Your task to perform on an android device: Clear the cart on amazon.com. Add "amazon basics triple a" to the cart on amazon.com Image 0: 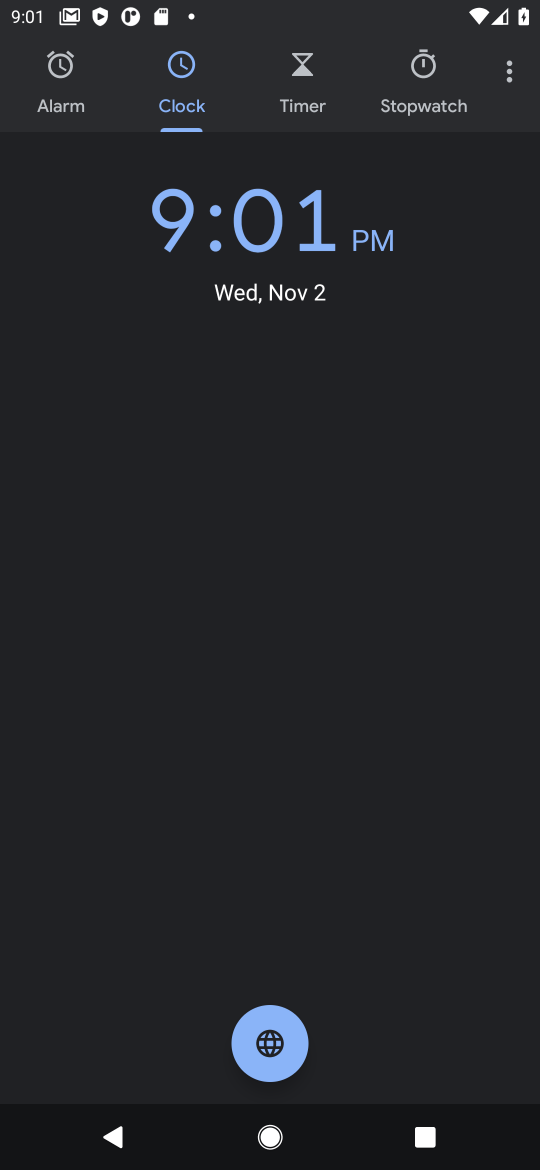
Step 0: press home button
Your task to perform on an android device: Clear the cart on amazon.com. Add "amazon basics triple a" to the cart on amazon.com Image 1: 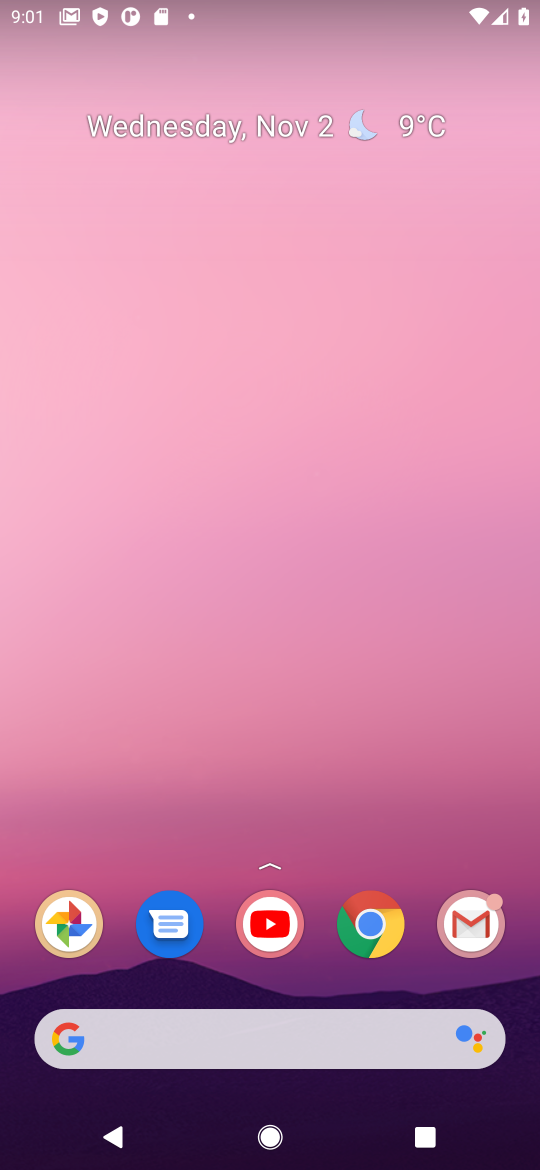
Step 1: click (366, 937)
Your task to perform on an android device: Clear the cart on amazon.com. Add "amazon basics triple a" to the cart on amazon.com Image 2: 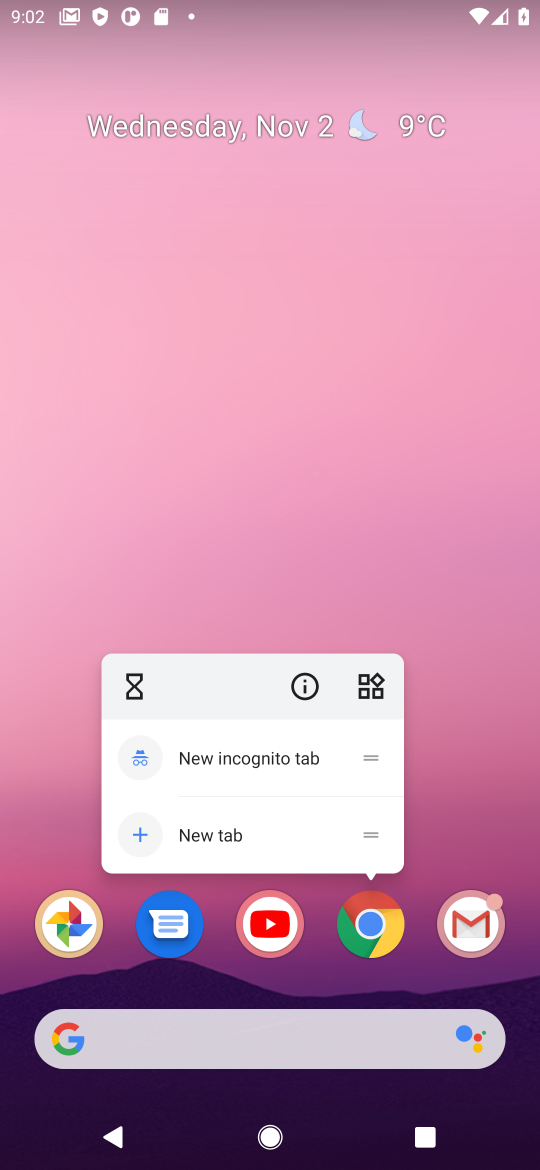
Step 2: click (369, 962)
Your task to perform on an android device: Clear the cart on amazon.com. Add "amazon basics triple a" to the cart on amazon.com Image 3: 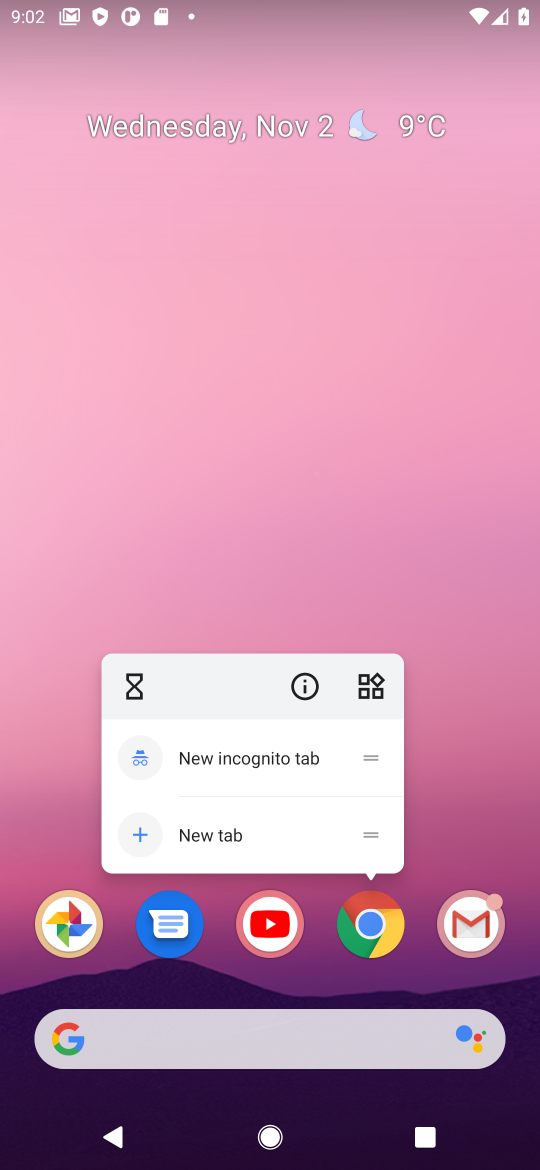
Step 3: click (344, 941)
Your task to perform on an android device: Clear the cart on amazon.com. Add "amazon basics triple a" to the cart on amazon.com Image 4: 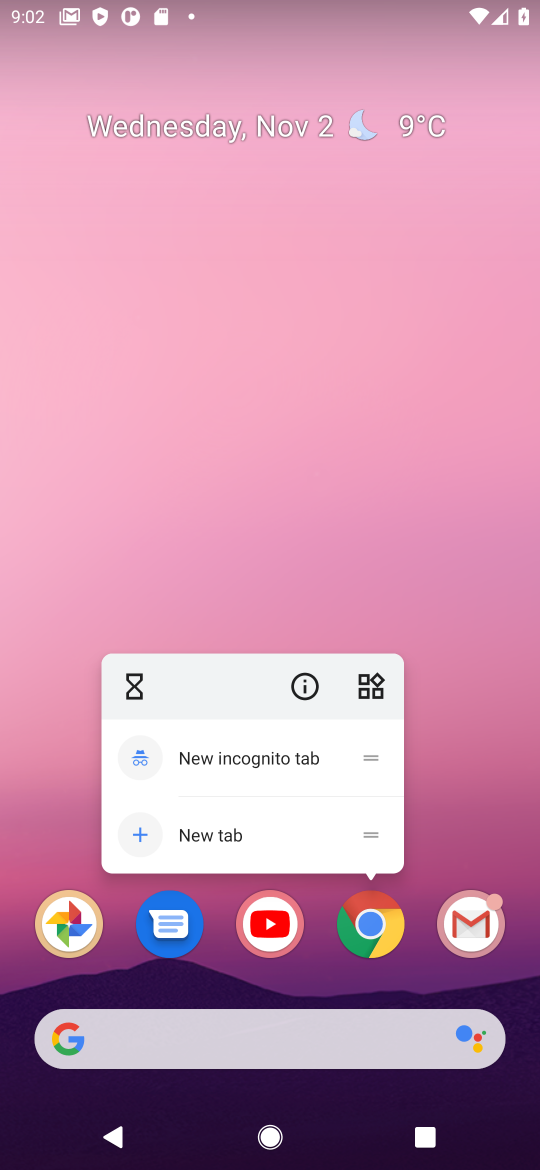
Step 4: click (384, 918)
Your task to perform on an android device: Clear the cart on amazon.com. Add "amazon basics triple a" to the cart on amazon.com Image 5: 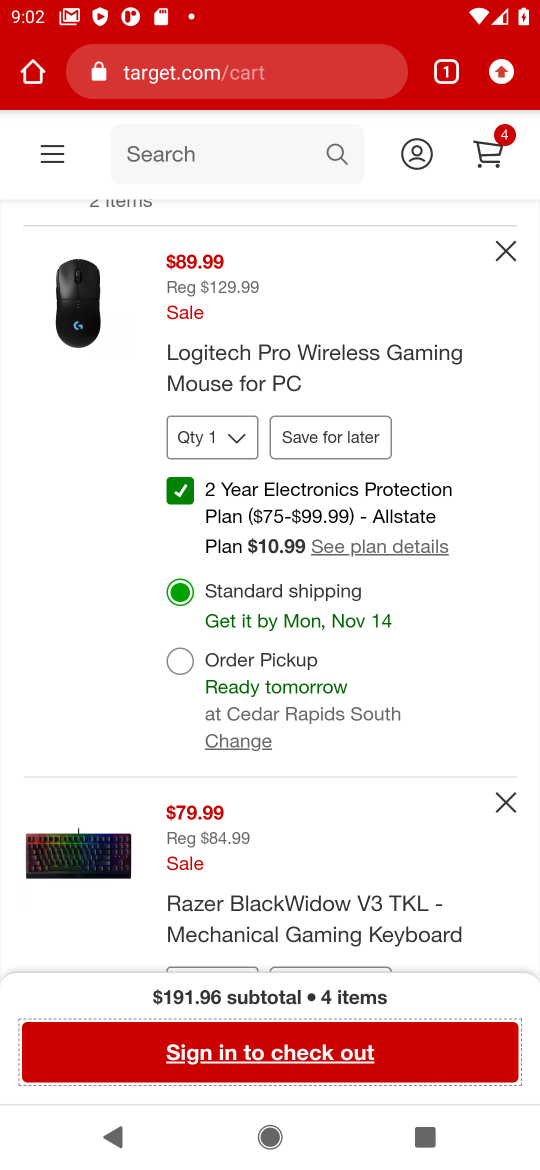
Step 5: click (224, 85)
Your task to perform on an android device: Clear the cart on amazon.com. Add "amazon basics triple a" to the cart on amazon.com Image 6: 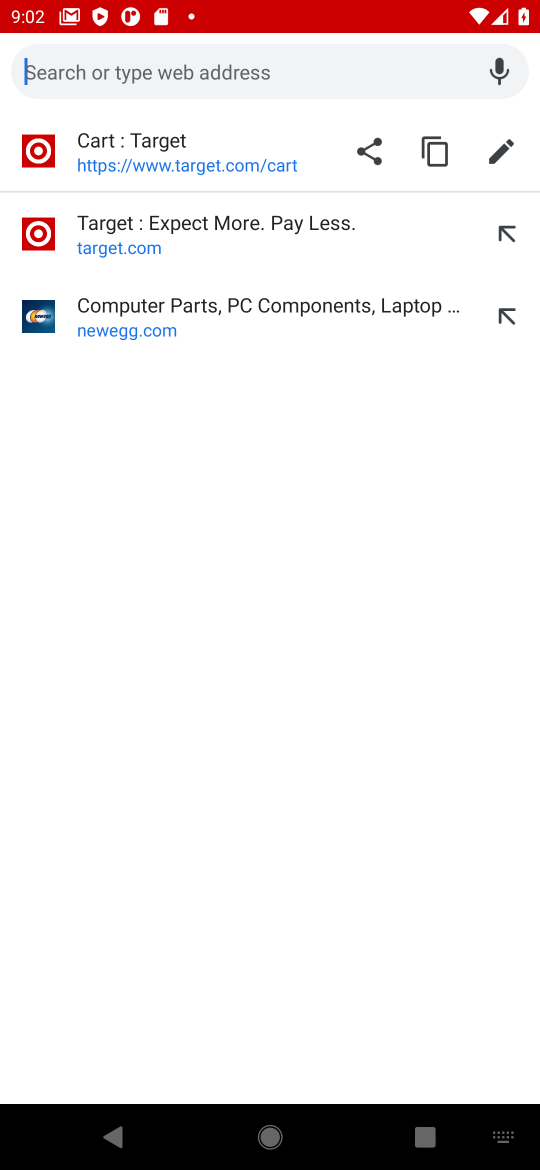
Step 6: type "amazon"
Your task to perform on an android device: Clear the cart on amazon.com. Add "amazon basics triple a" to the cart on amazon.com Image 7: 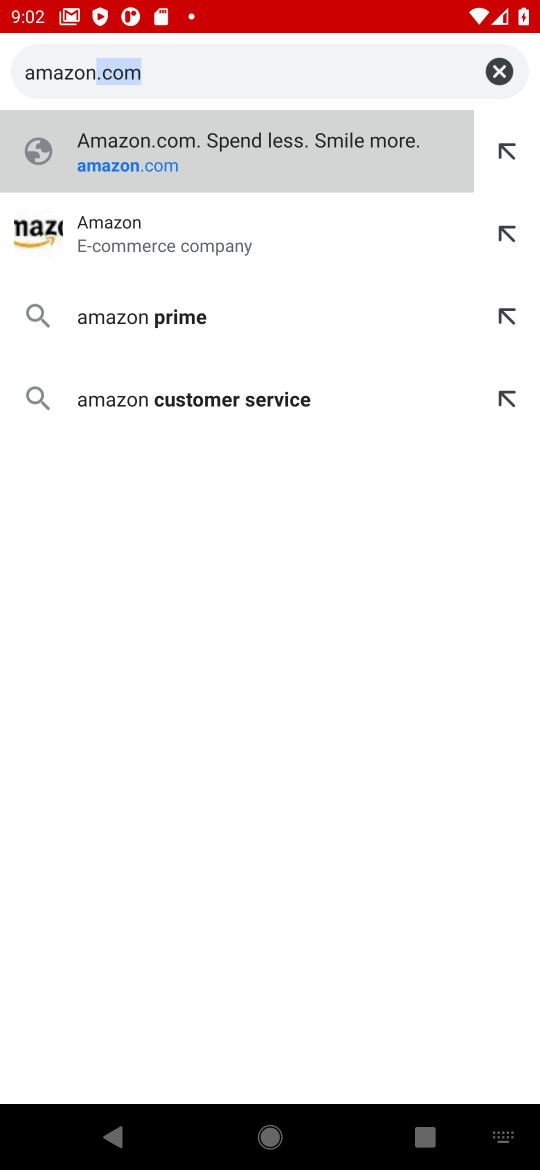
Step 7: type ""
Your task to perform on an android device: Clear the cart on amazon.com. Add "amazon basics triple a" to the cart on amazon.com Image 8: 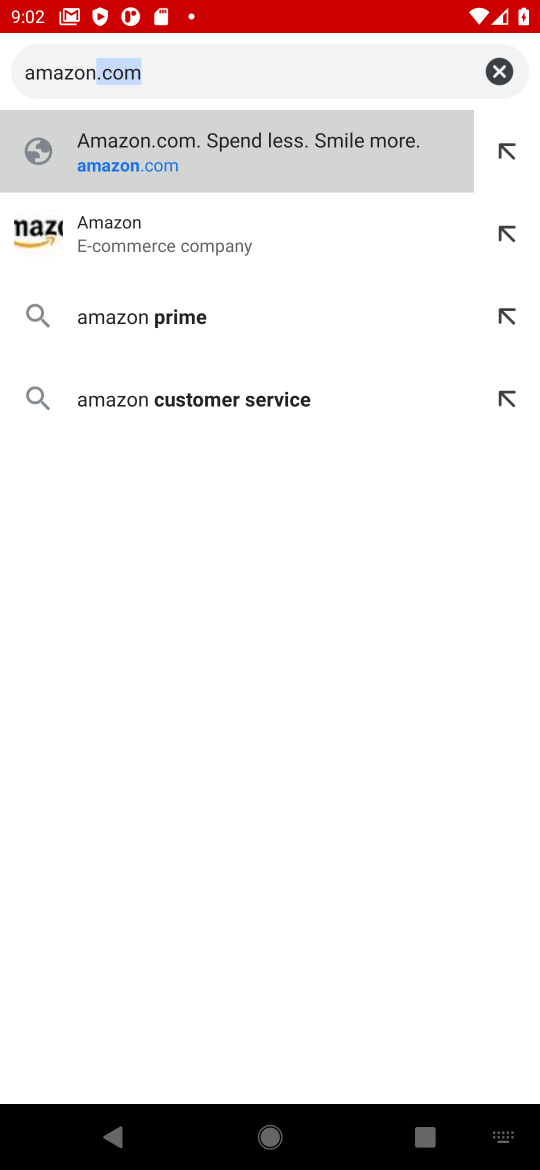
Step 8: click (103, 259)
Your task to perform on an android device: Clear the cart on amazon.com. Add "amazon basics triple a" to the cart on amazon.com Image 9: 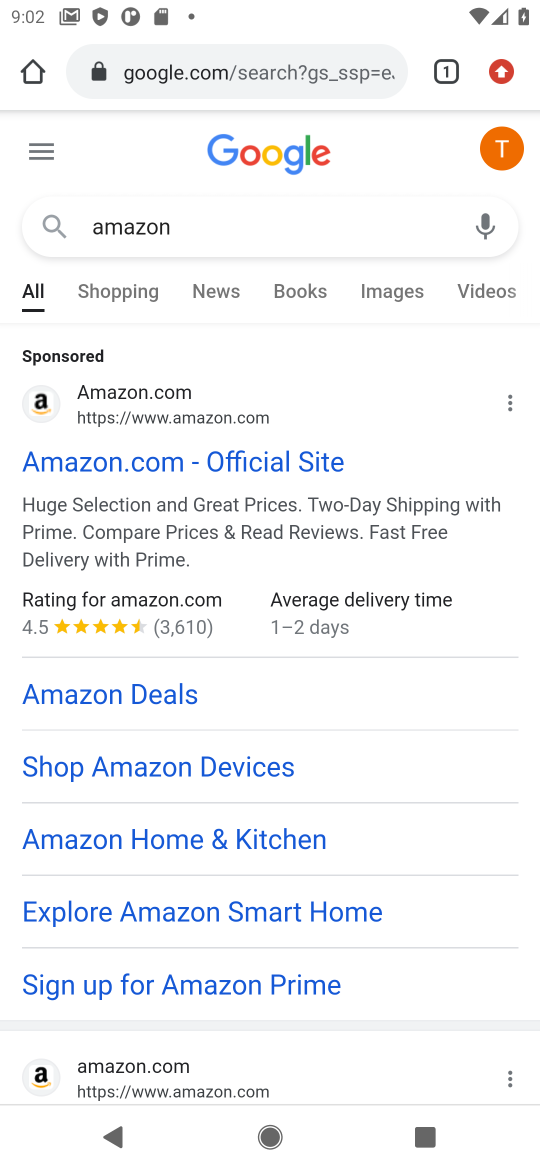
Step 9: drag from (196, 946) to (259, 416)
Your task to perform on an android device: Clear the cart on amazon.com. Add "amazon basics triple a" to the cart on amazon.com Image 10: 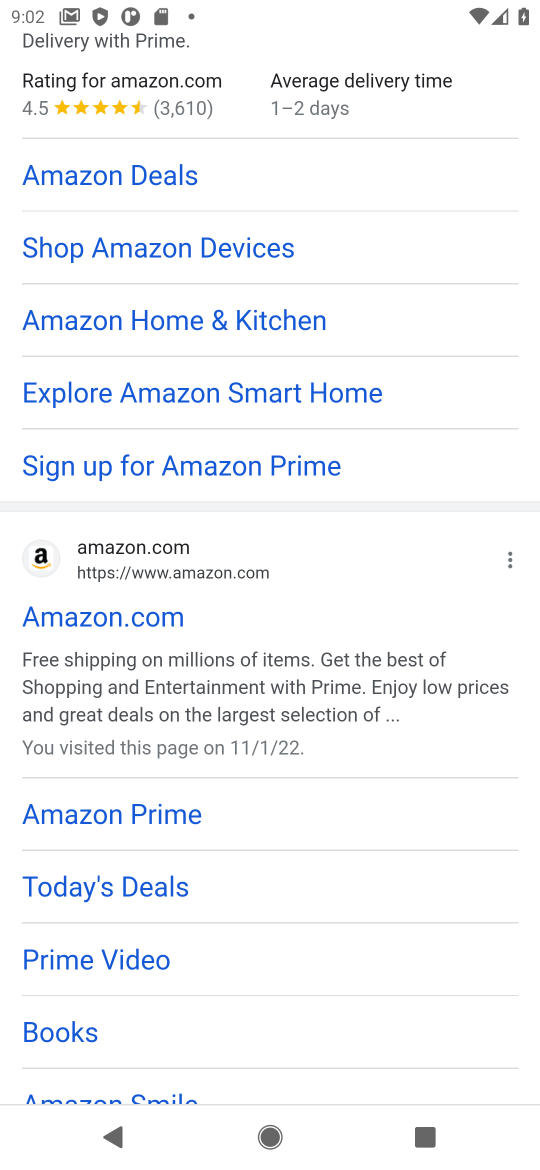
Step 10: click (87, 630)
Your task to perform on an android device: Clear the cart on amazon.com. Add "amazon basics triple a" to the cart on amazon.com Image 11: 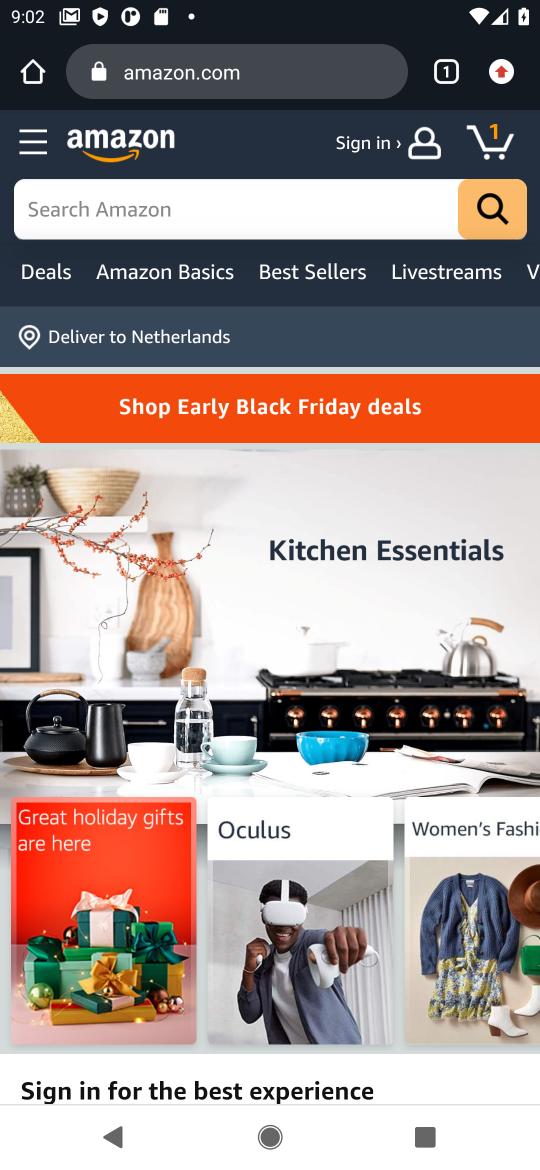
Step 11: click (507, 131)
Your task to perform on an android device: Clear the cart on amazon.com. Add "amazon basics triple a" to the cart on amazon.com Image 12: 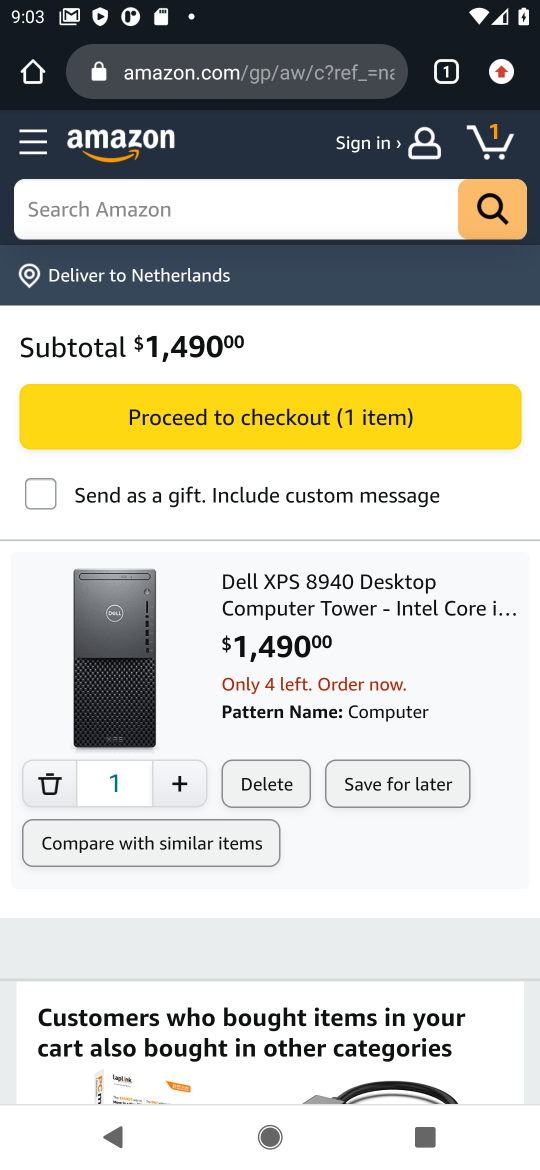
Step 12: click (272, 791)
Your task to perform on an android device: Clear the cart on amazon.com. Add "amazon basics triple a" to the cart on amazon.com Image 13: 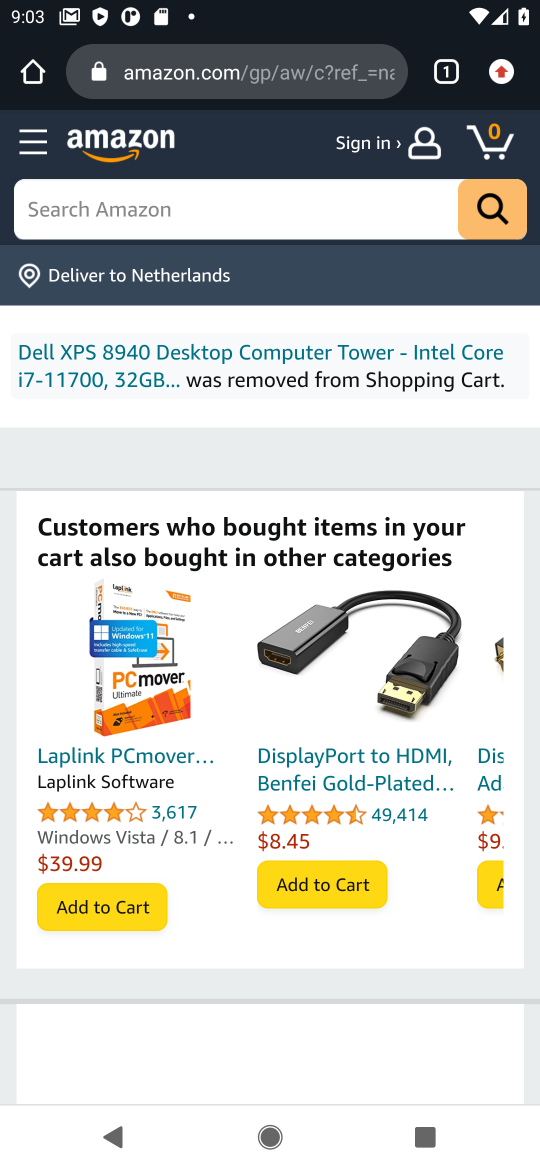
Step 13: click (498, 211)
Your task to perform on an android device: Clear the cart on amazon.com. Add "amazon basics triple a" to the cart on amazon.com Image 14: 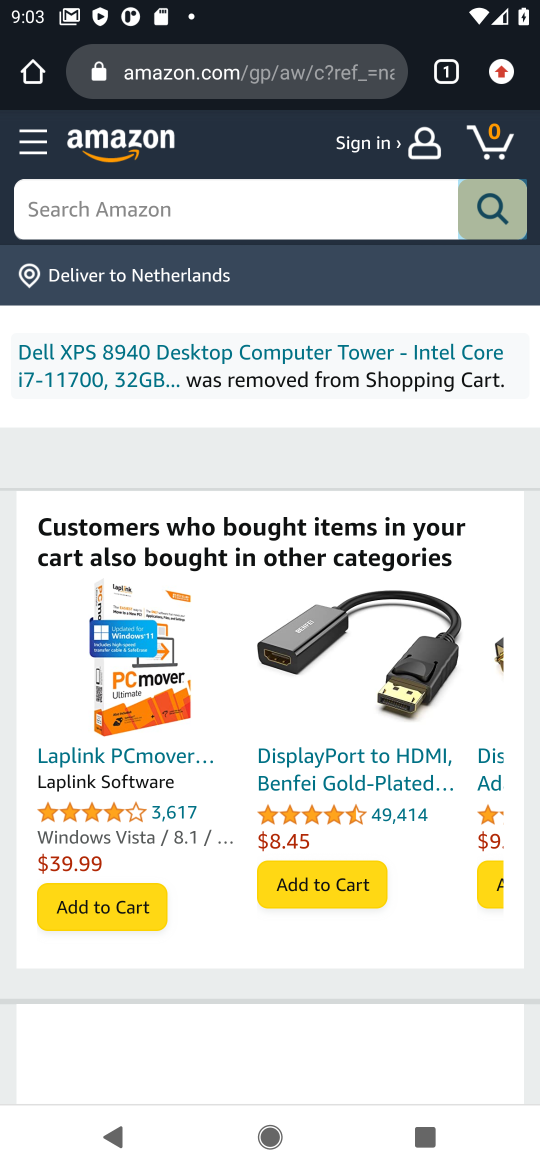
Step 14: click (191, 219)
Your task to perform on an android device: Clear the cart on amazon.com. Add "amazon basics triple a" to the cart on amazon.com Image 15: 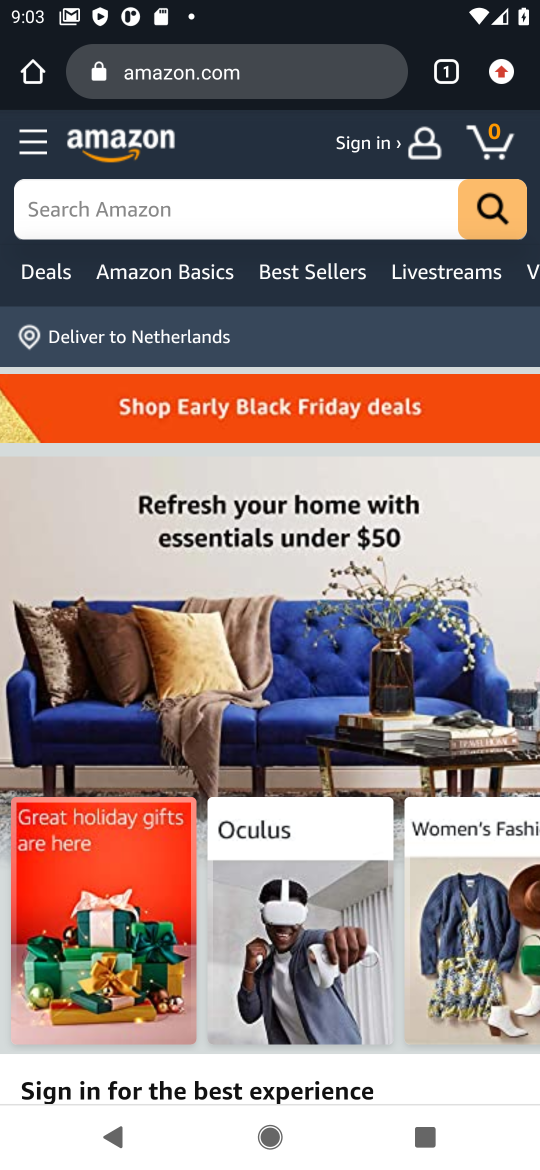
Step 15: click (299, 194)
Your task to perform on an android device: Clear the cart on amazon.com. Add "amazon basics triple a" to the cart on amazon.com Image 16: 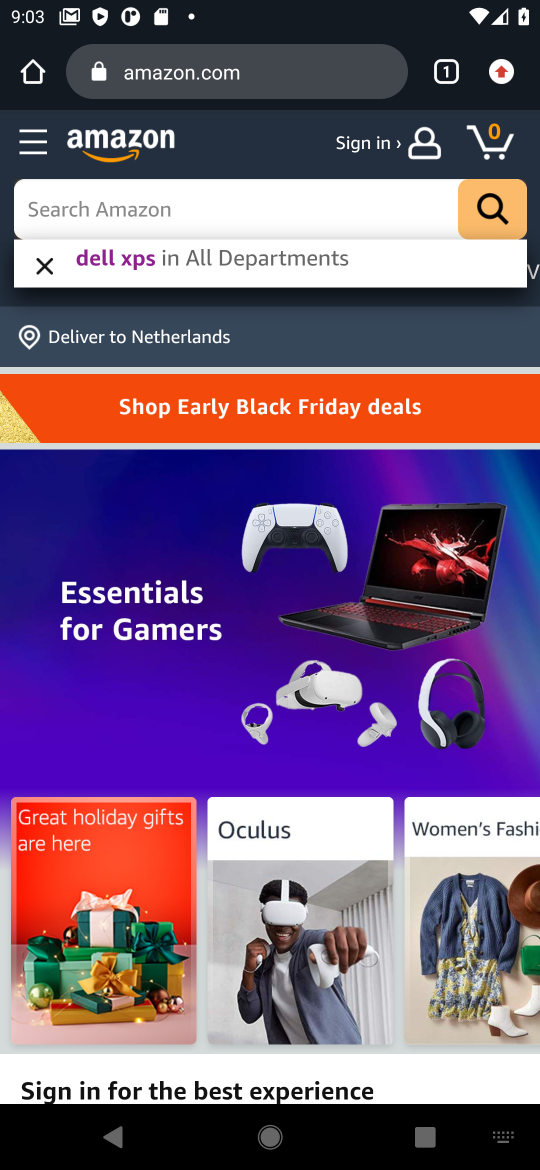
Step 16: type "basics triple"
Your task to perform on an android device: Clear the cart on amazon.com. Add "amazon basics triple a" to the cart on amazon.com Image 17: 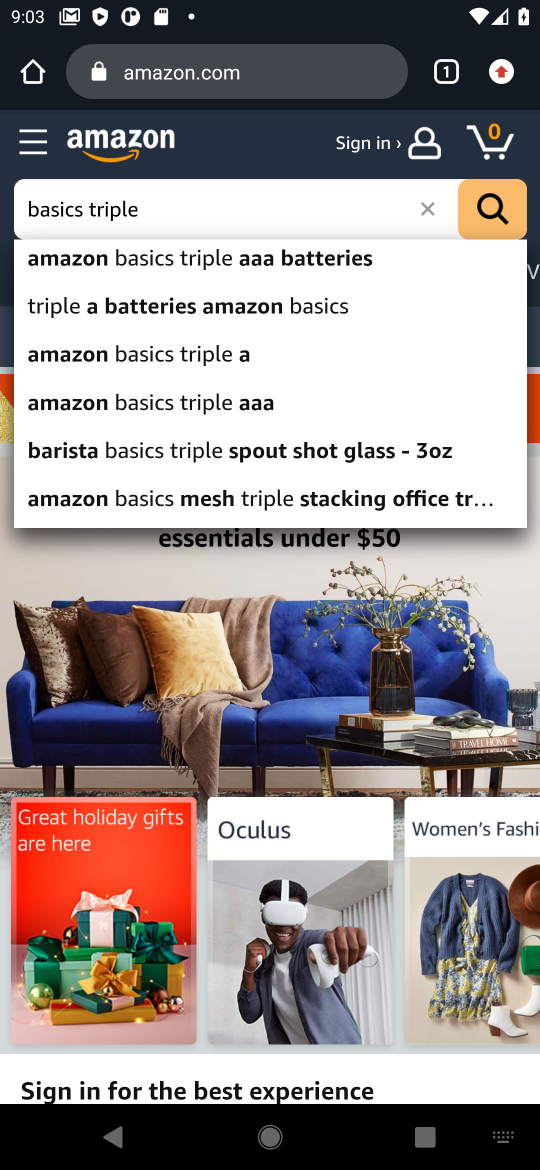
Step 17: click (126, 349)
Your task to perform on an android device: Clear the cart on amazon.com. Add "amazon basics triple a" to the cart on amazon.com Image 18: 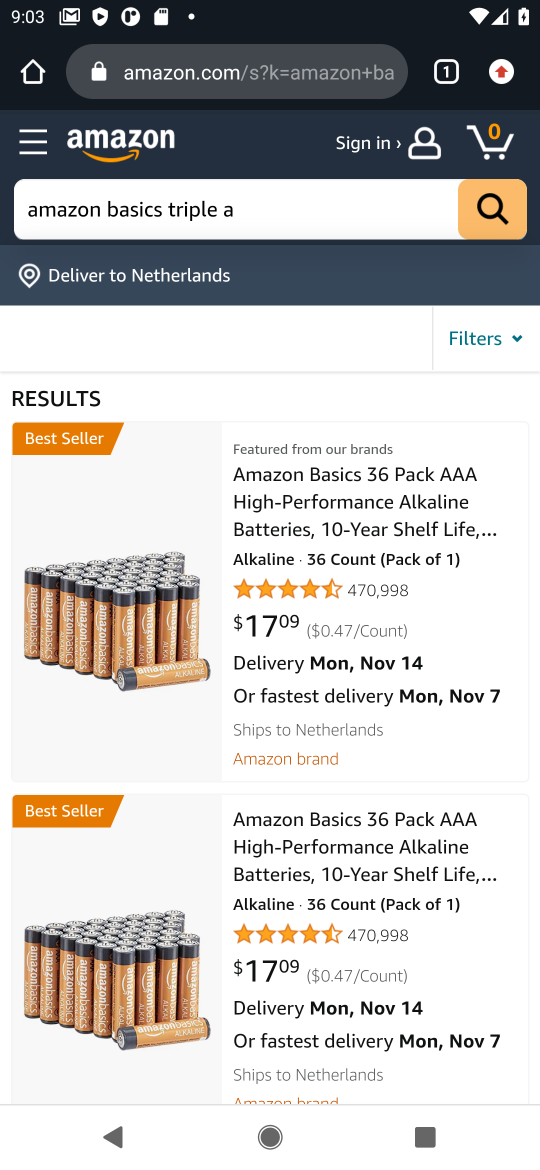
Step 18: click (108, 666)
Your task to perform on an android device: Clear the cart on amazon.com. Add "amazon basics triple a" to the cart on amazon.com Image 19: 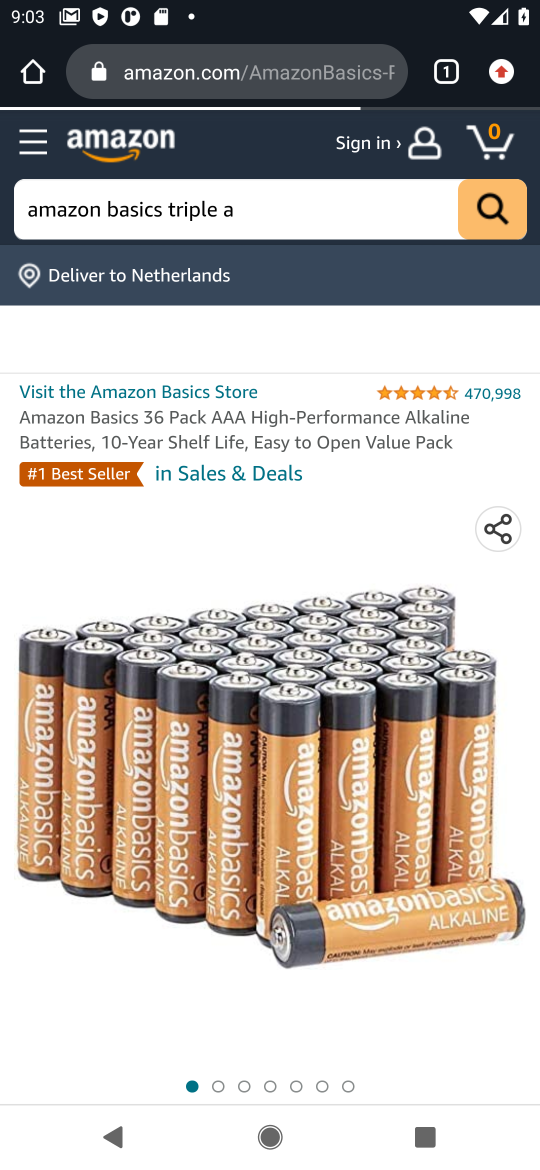
Step 19: drag from (204, 855) to (272, 452)
Your task to perform on an android device: Clear the cart on amazon.com. Add "amazon basics triple a" to the cart on amazon.com Image 20: 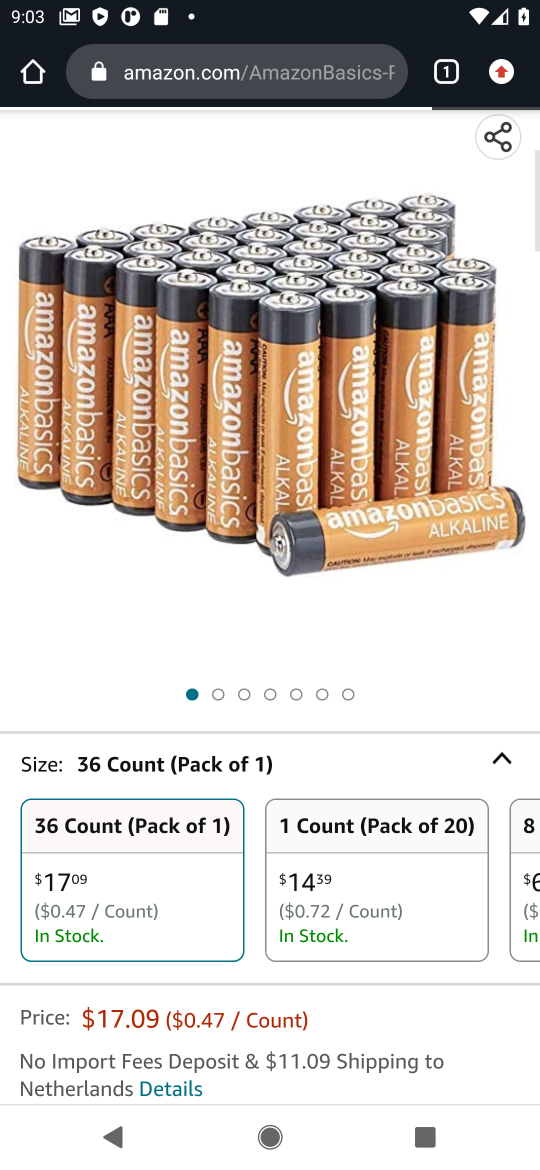
Step 20: drag from (215, 860) to (249, 648)
Your task to perform on an android device: Clear the cart on amazon.com. Add "amazon basics triple a" to the cart on amazon.com Image 21: 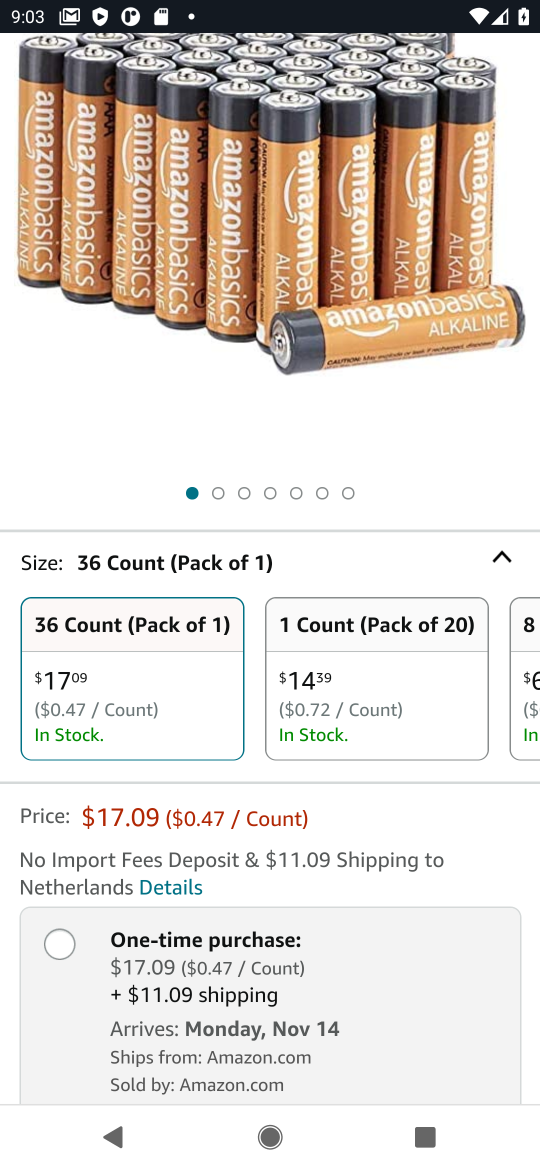
Step 21: drag from (197, 929) to (218, 674)
Your task to perform on an android device: Clear the cart on amazon.com. Add "amazon basics triple a" to the cart on amazon.com Image 22: 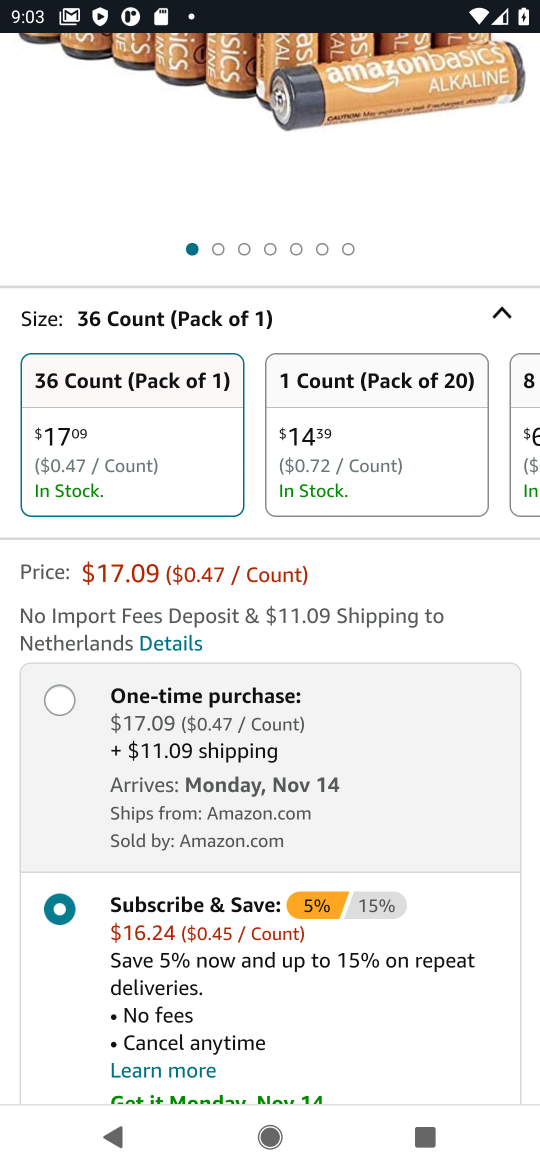
Step 22: drag from (232, 911) to (246, 539)
Your task to perform on an android device: Clear the cart on amazon.com. Add "amazon basics triple a" to the cart on amazon.com Image 23: 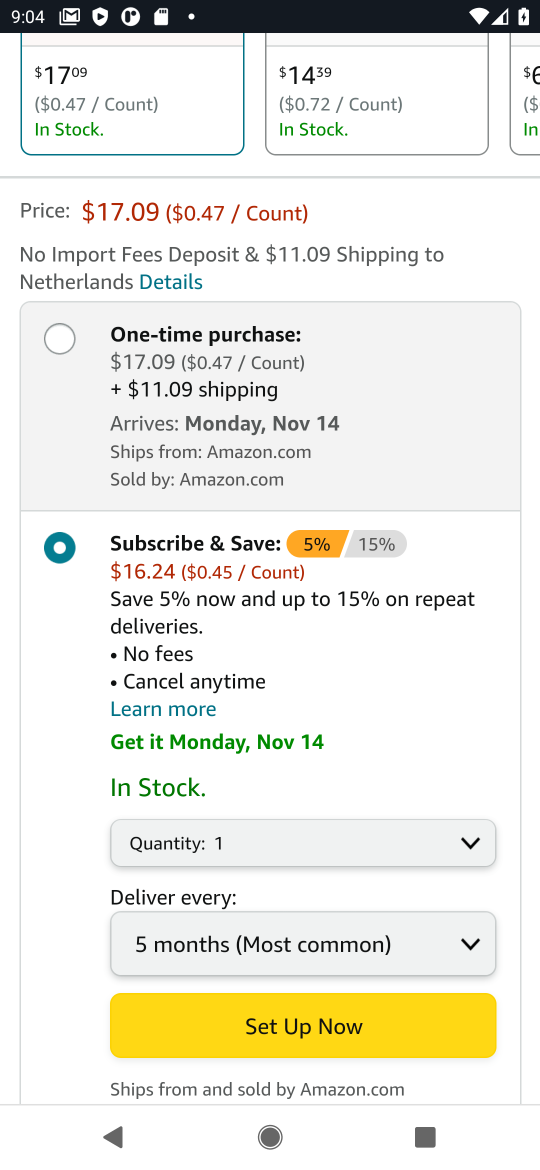
Step 23: drag from (235, 772) to (273, 481)
Your task to perform on an android device: Clear the cart on amazon.com. Add "amazon basics triple a" to the cart on amazon.com Image 24: 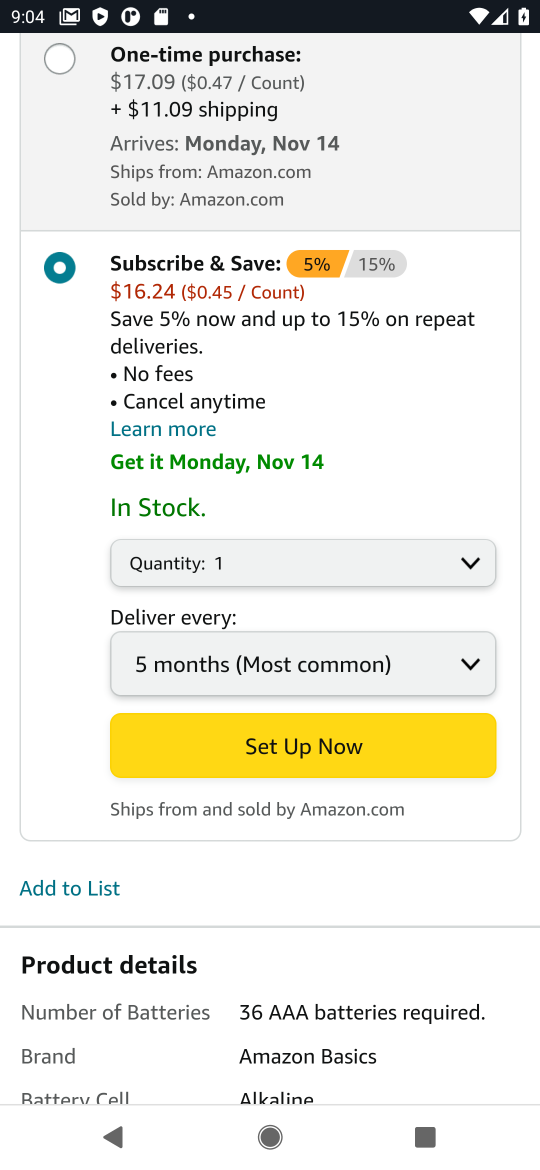
Step 24: drag from (199, 812) to (259, 160)
Your task to perform on an android device: Clear the cart on amazon.com. Add "amazon basics triple a" to the cart on amazon.com Image 25: 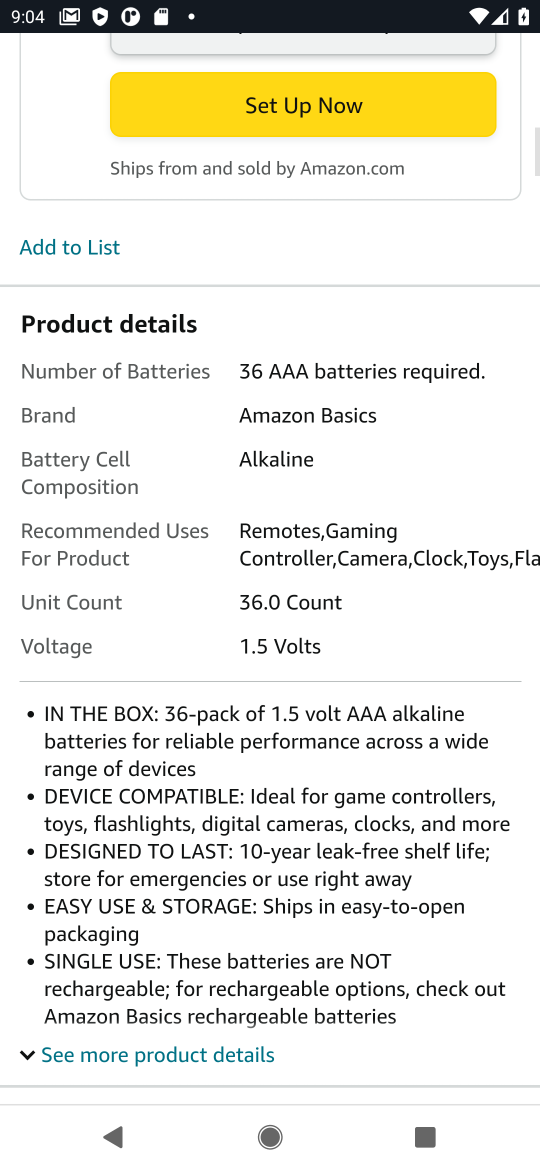
Step 25: drag from (187, 434) to (182, 1106)
Your task to perform on an android device: Clear the cart on amazon.com. Add "amazon basics triple a" to the cart on amazon.com Image 26: 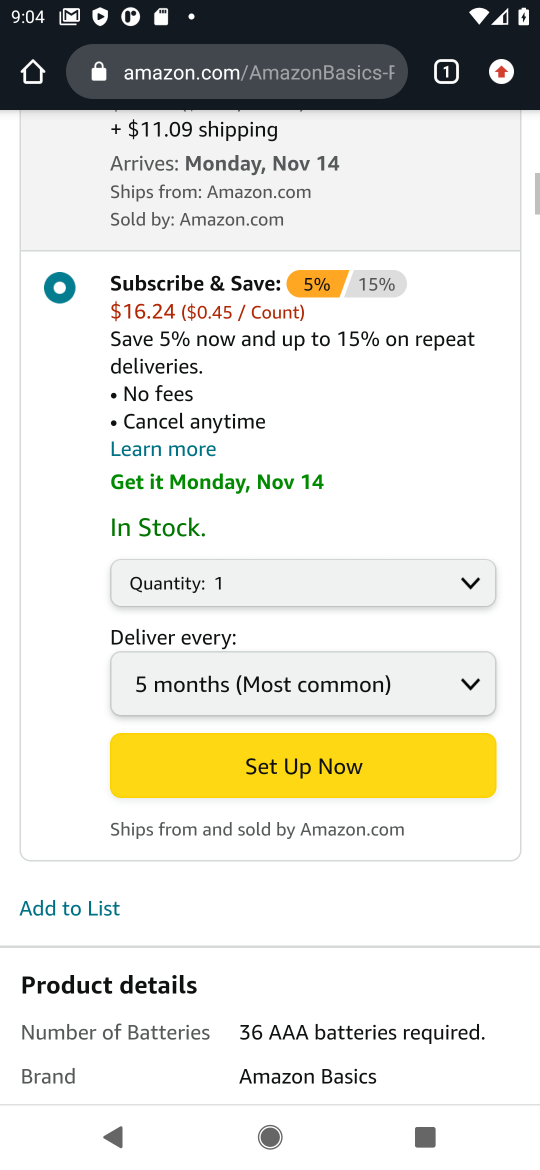
Step 26: drag from (260, 393) to (253, 958)
Your task to perform on an android device: Clear the cart on amazon.com. Add "amazon basics triple a" to the cart on amazon.com Image 27: 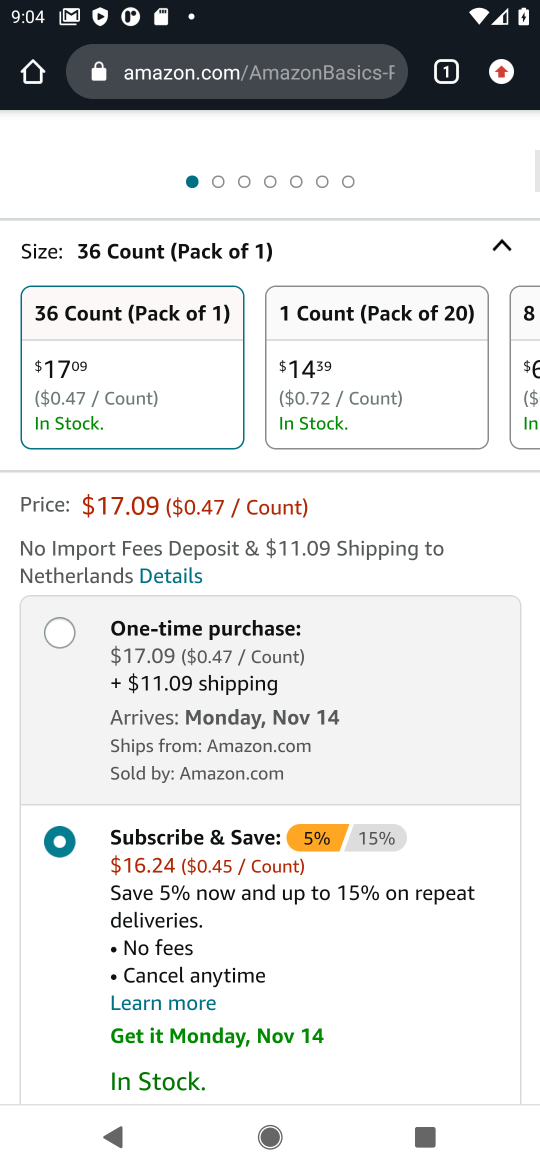
Step 27: drag from (257, 555) to (235, 794)
Your task to perform on an android device: Clear the cart on amazon.com. Add "amazon basics triple a" to the cart on amazon.com Image 28: 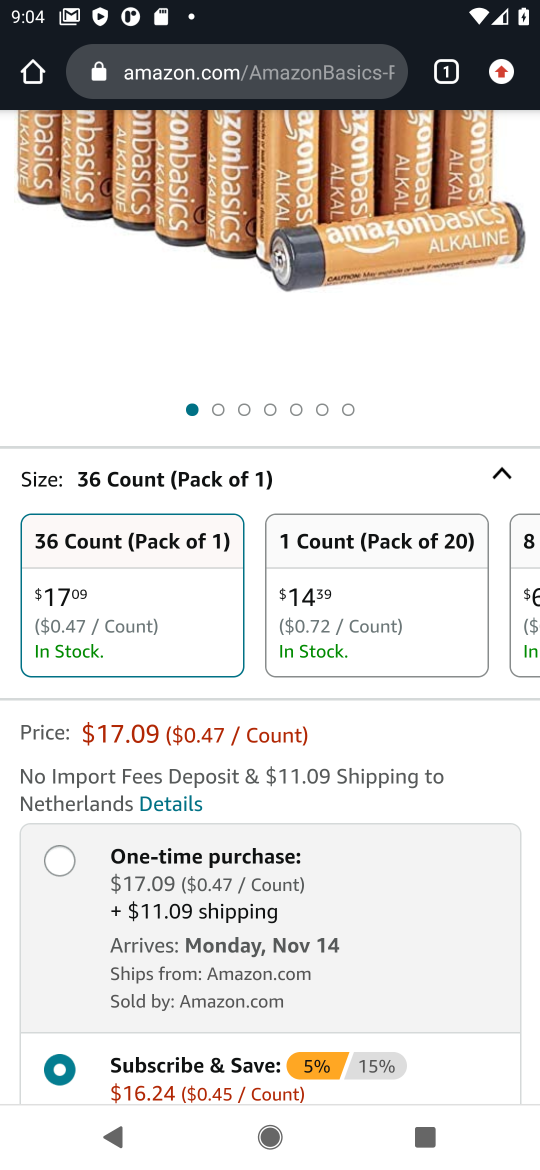
Step 28: drag from (302, 744) to (326, 124)
Your task to perform on an android device: Clear the cart on amazon.com. Add "amazon basics triple a" to the cart on amazon.com Image 29: 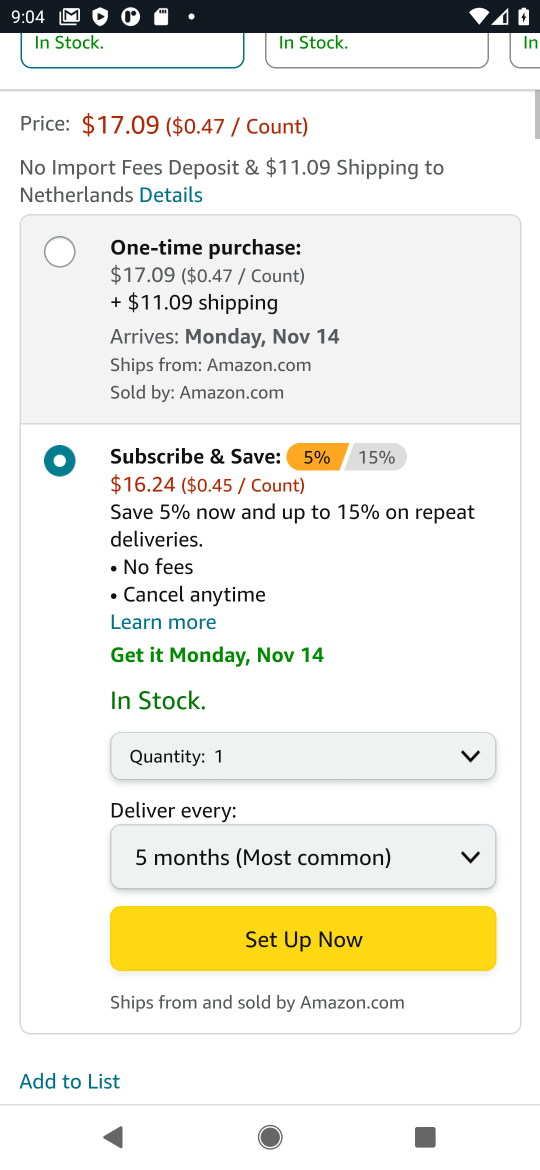
Step 29: drag from (235, 565) to (229, 81)
Your task to perform on an android device: Clear the cart on amazon.com. Add "amazon basics triple a" to the cart on amazon.com Image 30: 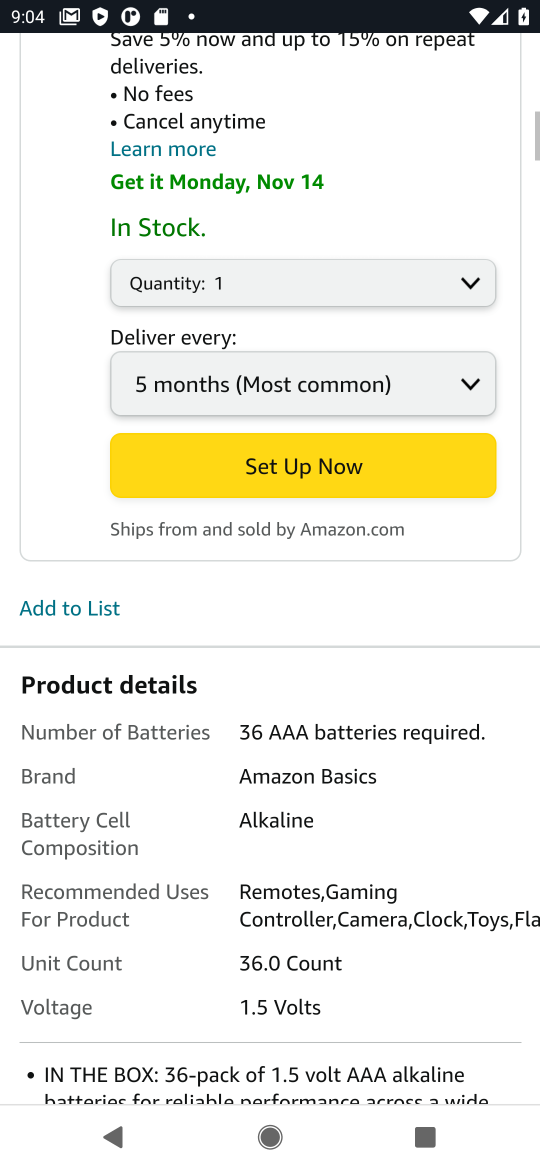
Step 30: drag from (144, 854) to (132, 283)
Your task to perform on an android device: Clear the cart on amazon.com. Add "amazon basics triple a" to the cart on amazon.com Image 31: 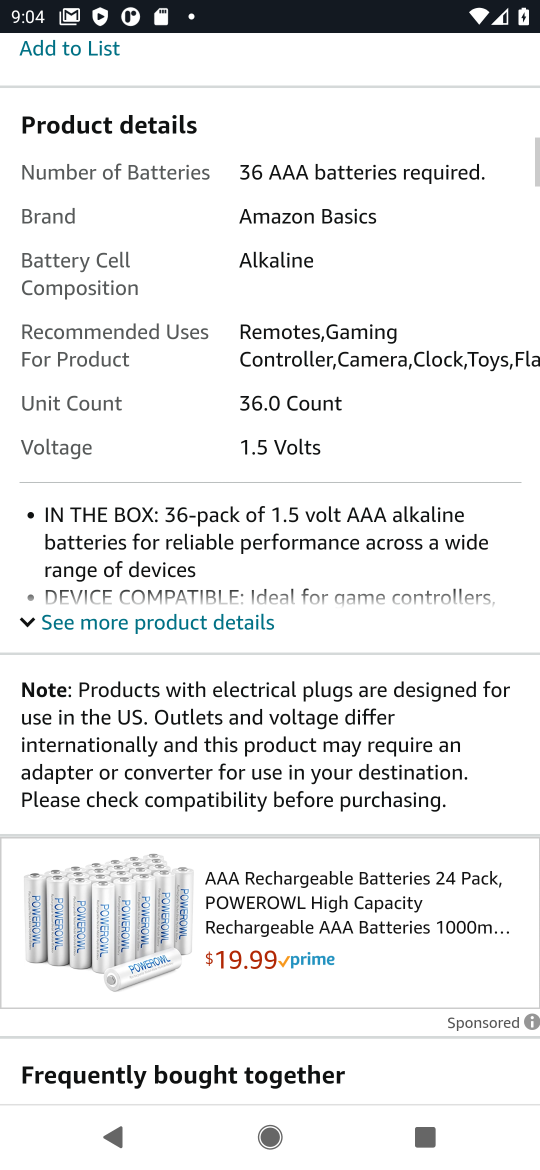
Step 31: drag from (146, 772) to (131, 402)
Your task to perform on an android device: Clear the cart on amazon.com. Add "amazon basics triple a" to the cart on amazon.com Image 32: 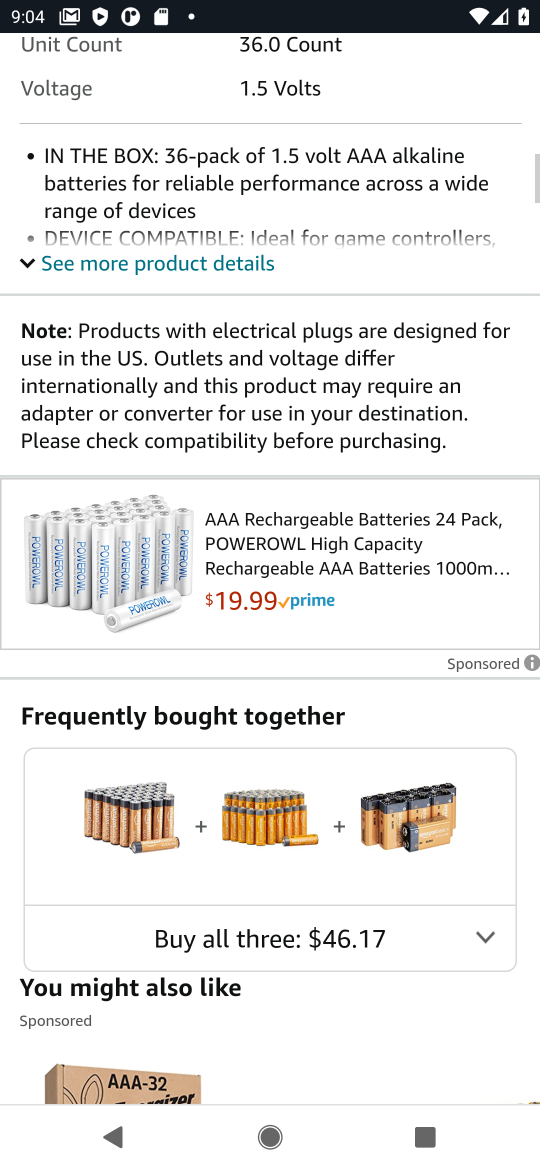
Step 32: drag from (167, 1083) to (199, 621)
Your task to perform on an android device: Clear the cart on amazon.com. Add "amazon basics triple a" to the cart on amazon.com Image 33: 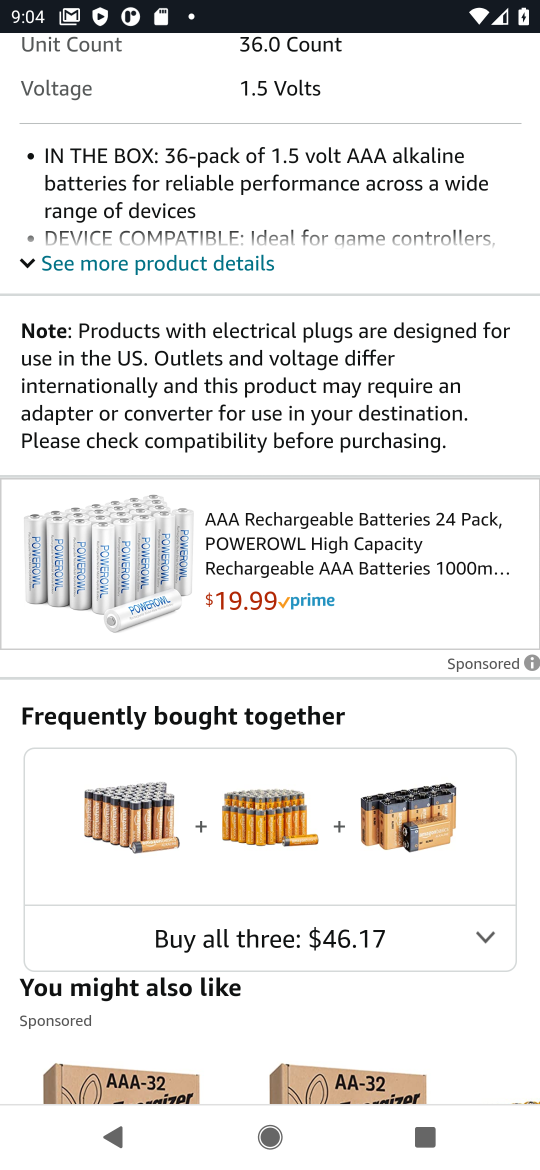
Step 33: drag from (201, 662) to (244, 332)
Your task to perform on an android device: Clear the cart on amazon.com. Add "amazon basics triple a" to the cart on amazon.com Image 34: 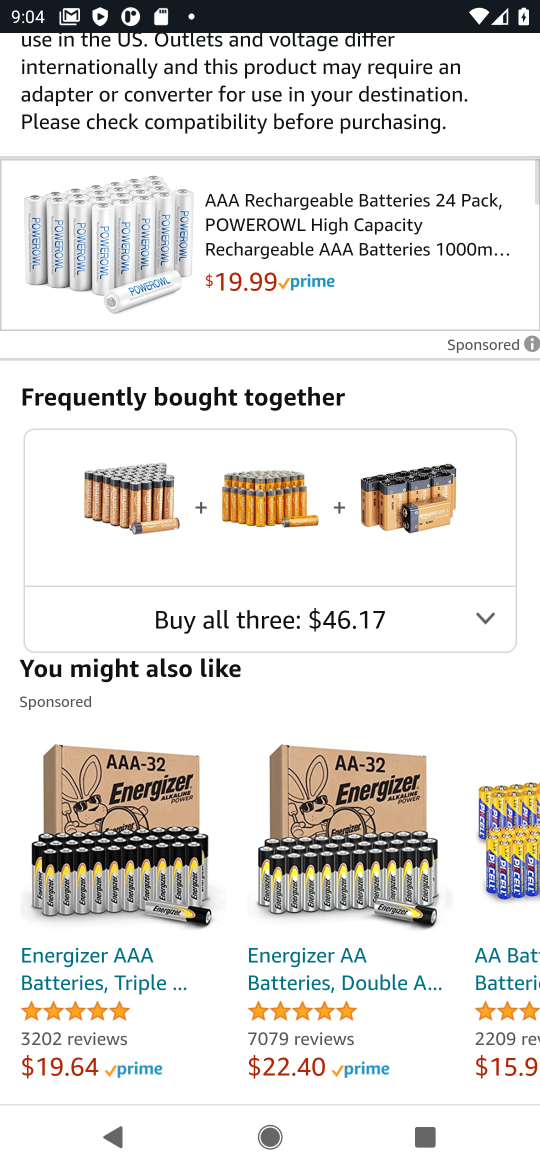
Step 34: drag from (383, 836) to (404, 482)
Your task to perform on an android device: Clear the cart on amazon.com. Add "amazon basics triple a" to the cart on amazon.com Image 35: 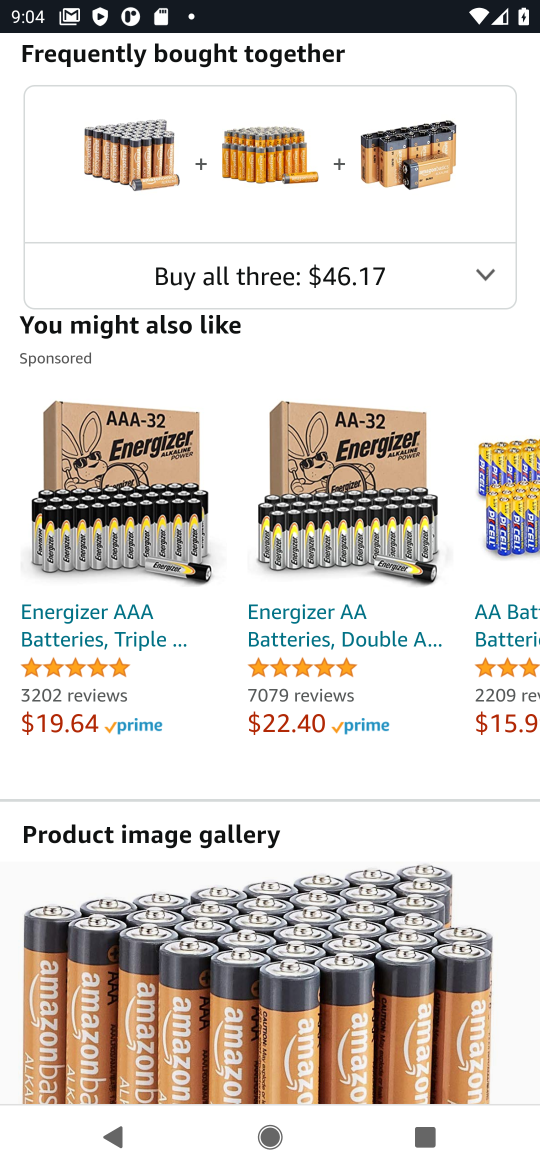
Step 35: drag from (301, 379) to (319, 979)
Your task to perform on an android device: Clear the cart on amazon.com. Add "amazon basics triple a" to the cart on amazon.com Image 36: 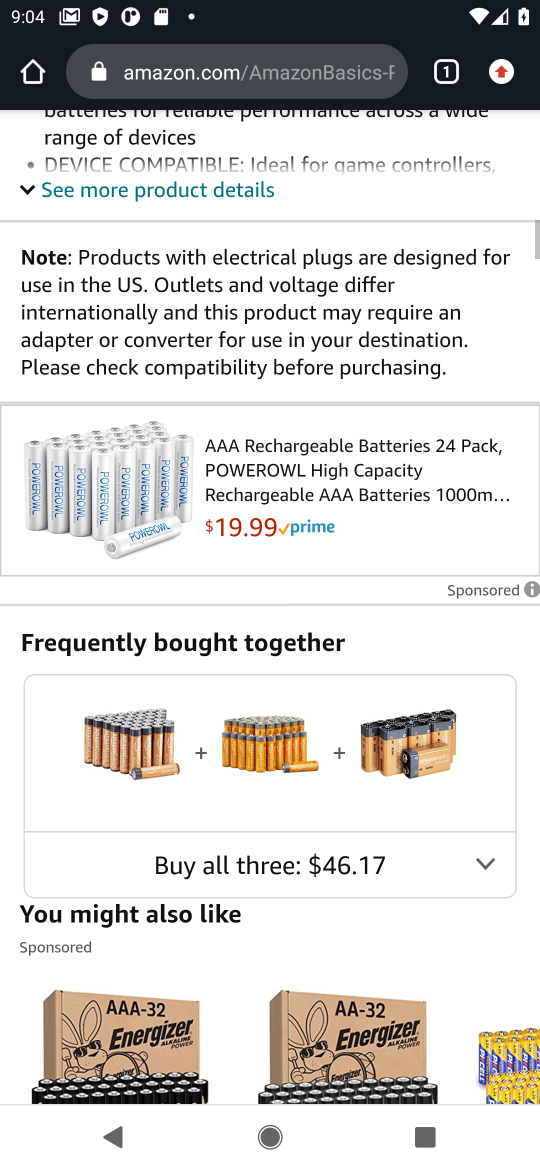
Step 36: drag from (192, 407) to (163, 924)
Your task to perform on an android device: Clear the cart on amazon.com. Add "amazon basics triple a" to the cart on amazon.com Image 37: 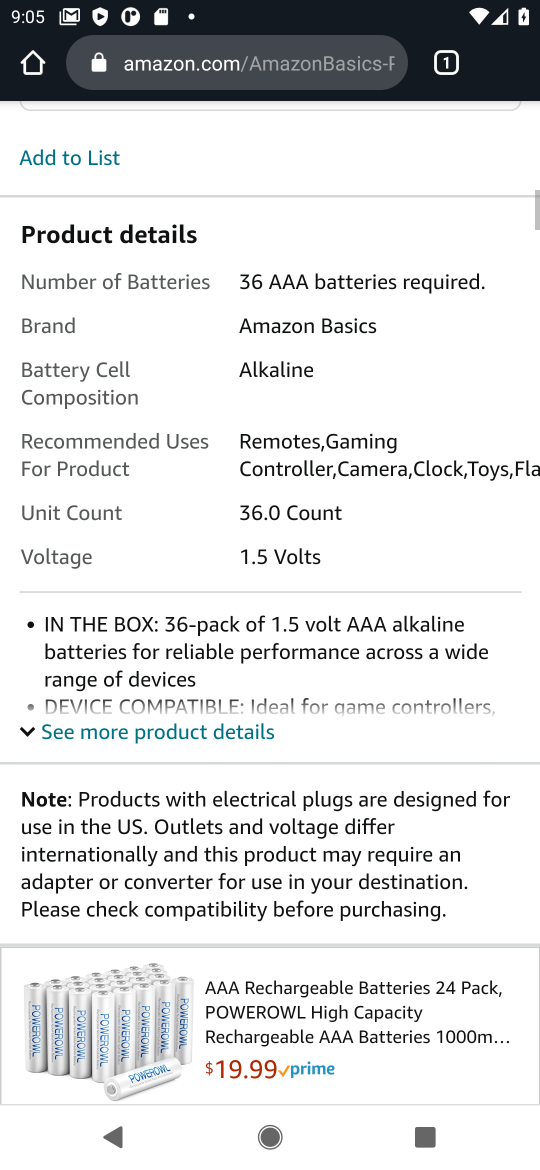
Step 37: drag from (95, 420) to (16, 1147)
Your task to perform on an android device: Clear the cart on amazon.com. Add "amazon basics triple a" to the cart on amazon.com Image 38: 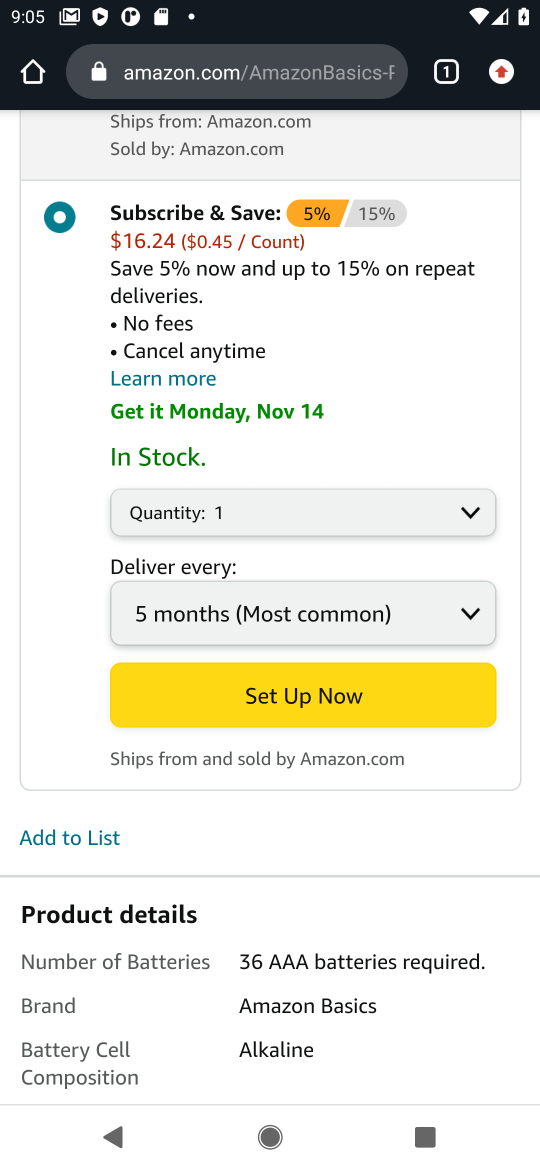
Step 38: drag from (307, 469) to (299, 1056)
Your task to perform on an android device: Clear the cart on amazon.com. Add "amazon basics triple a" to the cart on amazon.com Image 39: 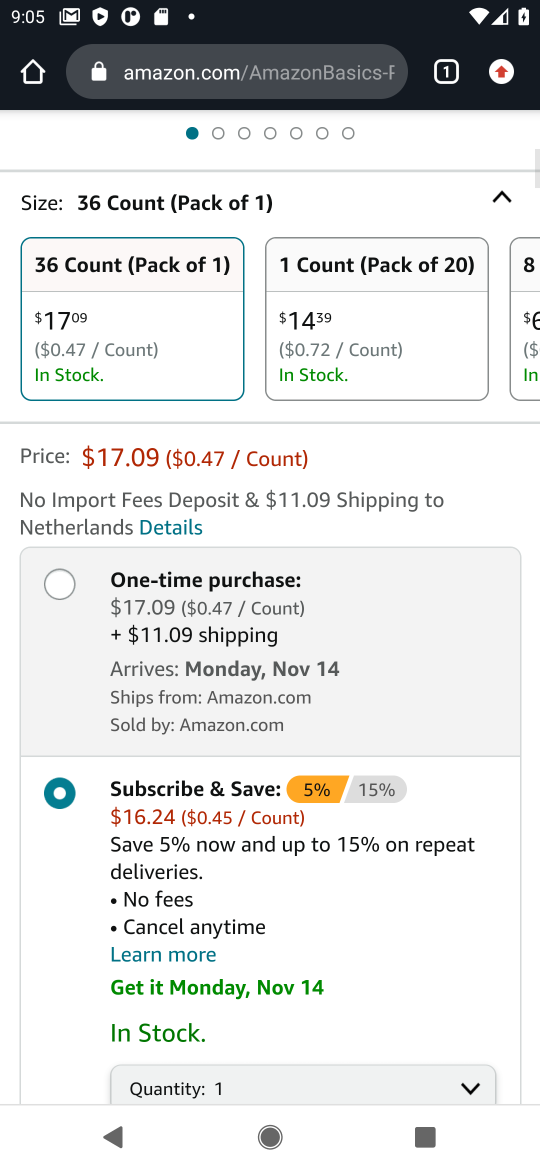
Step 39: drag from (112, 472) to (87, 836)
Your task to perform on an android device: Clear the cart on amazon.com. Add "amazon basics triple a" to the cart on amazon.com Image 40: 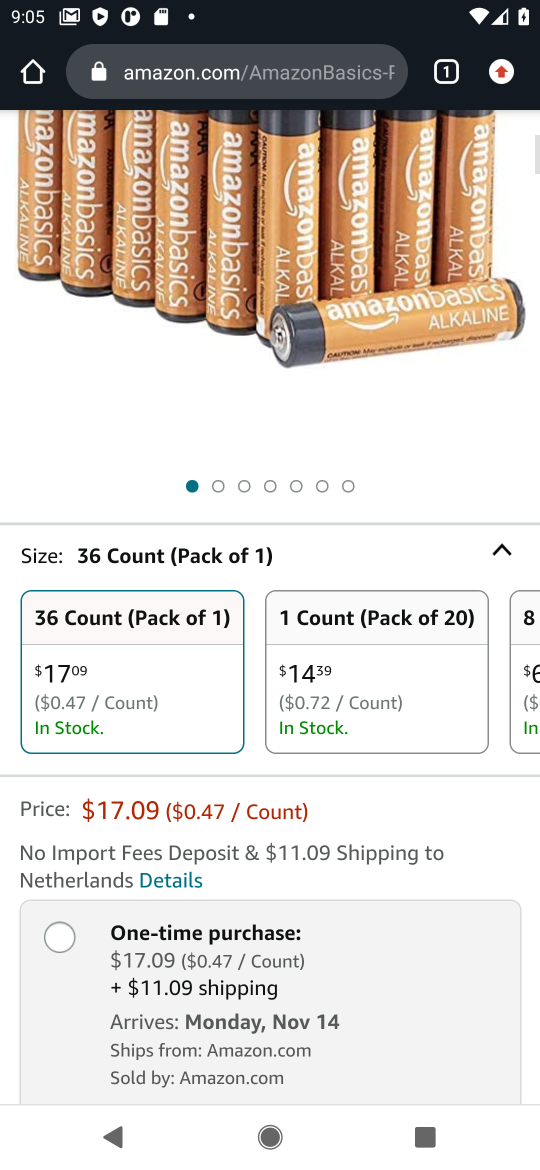
Step 40: drag from (202, 362) to (256, 763)
Your task to perform on an android device: Clear the cart on amazon.com. Add "amazon basics triple a" to the cart on amazon.com Image 41: 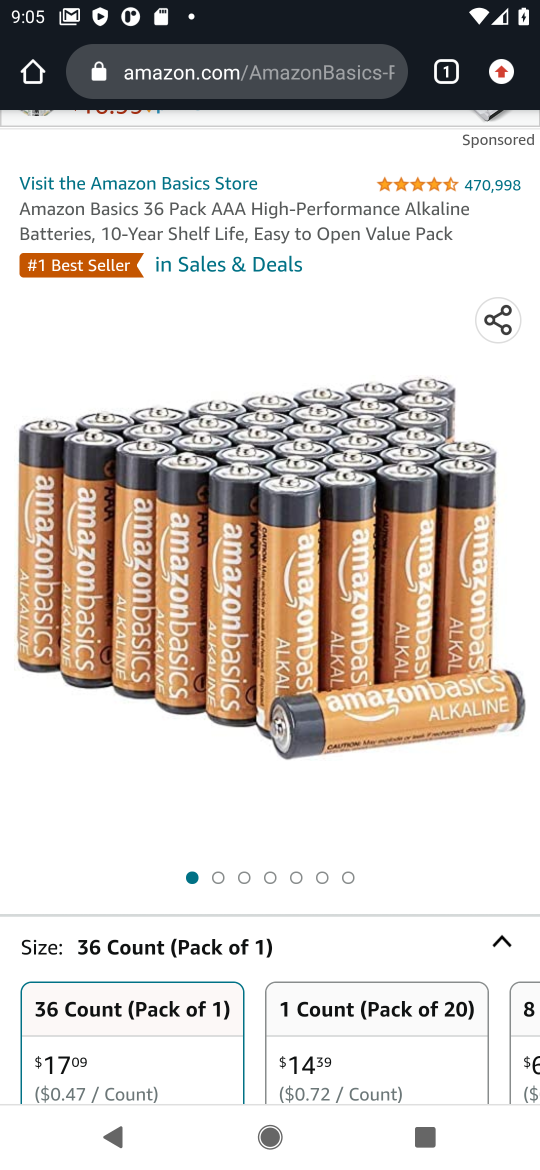
Step 41: drag from (211, 369) to (233, 853)
Your task to perform on an android device: Clear the cart on amazon.com. Add "amazon basics triple a" to the cart on amazon.com Image 42: 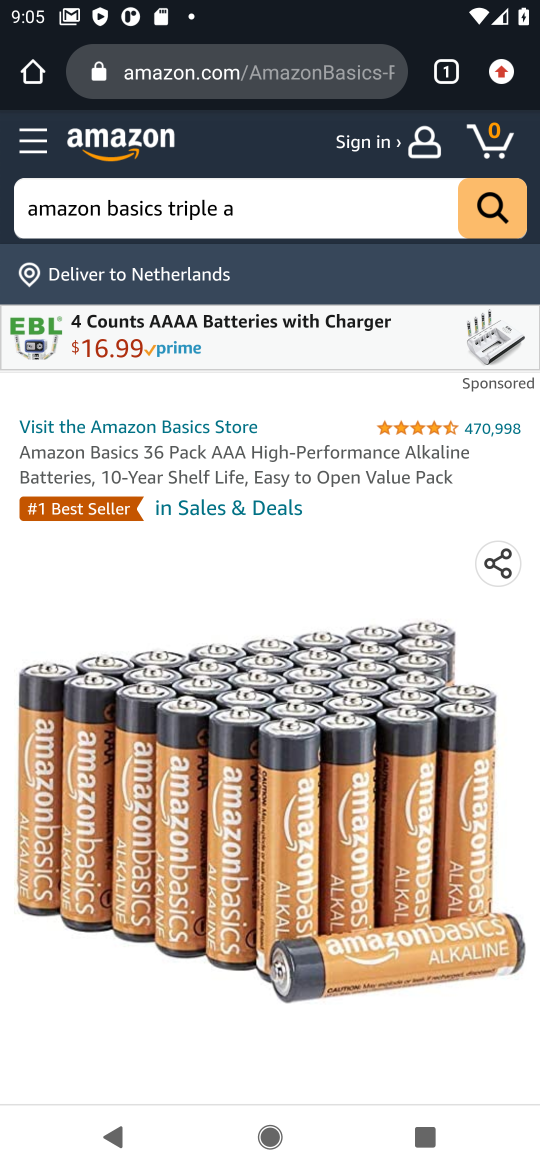
Step 42: drag from (266, 790) to (306, 254)
Your task to perform on an android device: Clear the cart on amazon.com. Add "amazon basics triple a" to the cart on amazon.com Image 43: 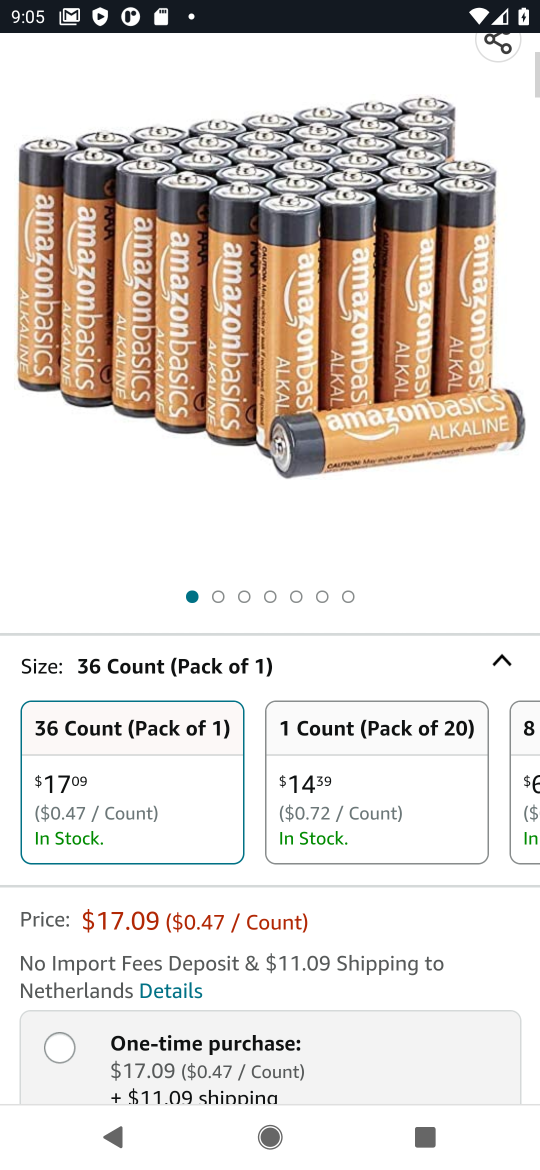
Step 43: drag from (246, 1005) to (321, 66)
Your task to perform on an android device: Clear the cart on amazon.com. Add "amazon basics triple a" to the cart on amazon.com Image 44: 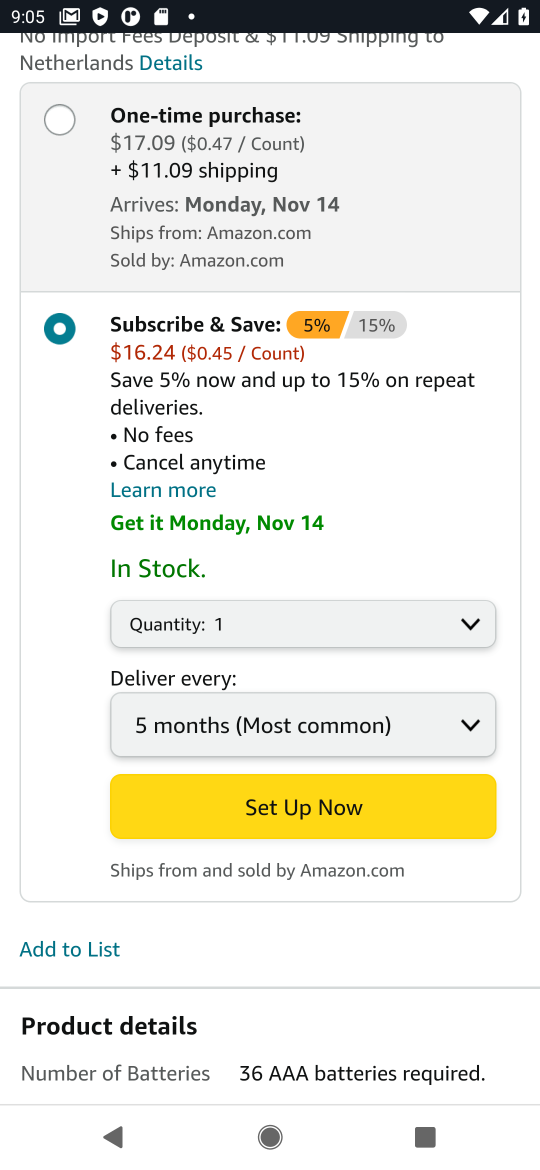
Step 44: drag from (331, 1059) to (346, 420)
Your task to perform on an android device: Clear the cart on amazon.com. Add "amazon basics triple a" to the cart on amazon.com Image 45: 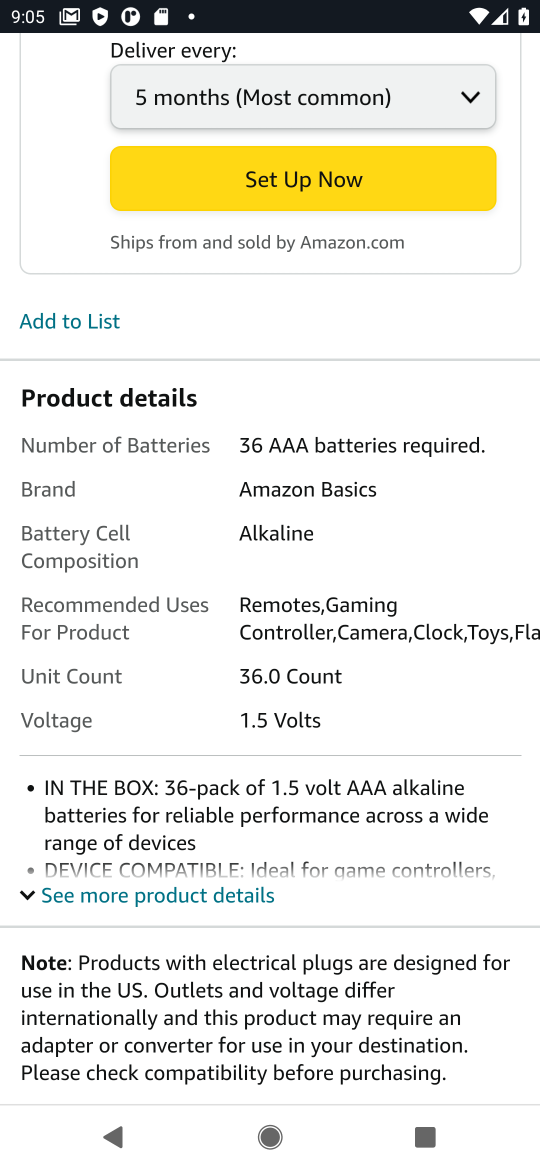
Step 45: click (38, 318)
Your task to perform on an android device: Clear the cart on amazon.com. Add "amazon basics triple a" to the cart on amazon.com Image 46: 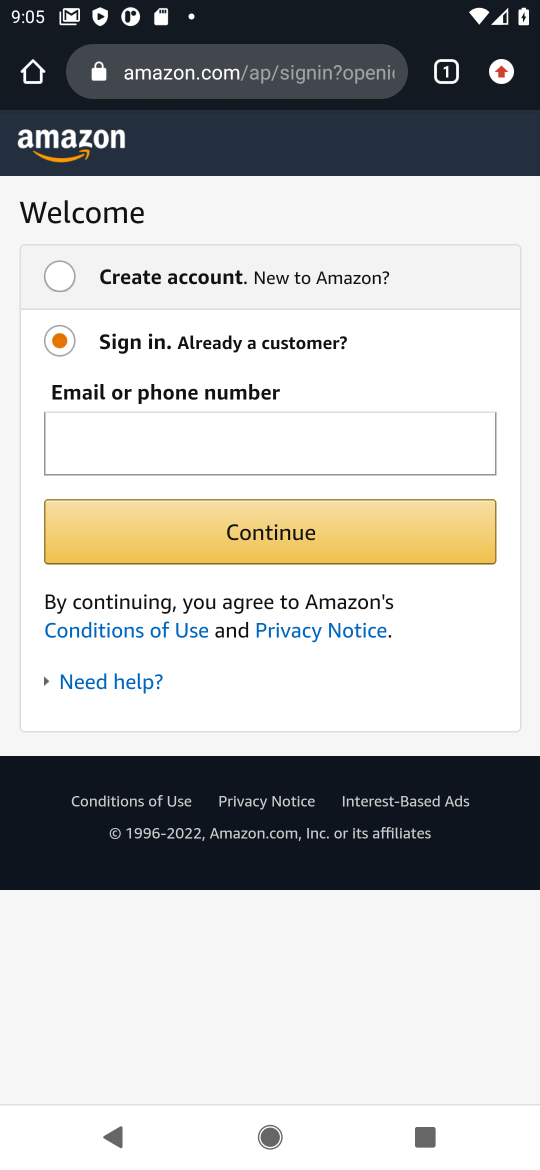
Step 46: task complete